Your task to perform on an android device: turn off translation in the chrome app Image 0: 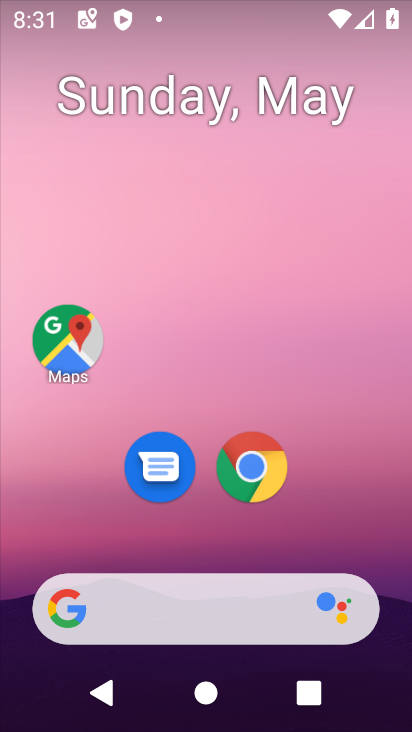
Step 0: click (253, 472)
Your task to perform on an android device: turn off translation in the chrome app Image 1: 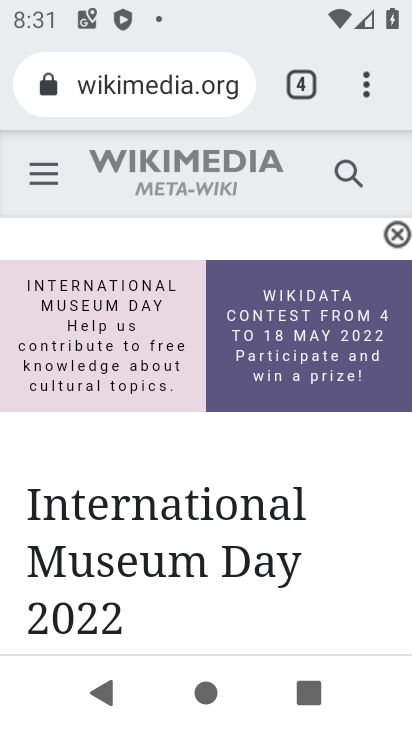
Step 1: click (253, 472)
Your task to perform on an android device: turn off translation in the chrome app Image 2: 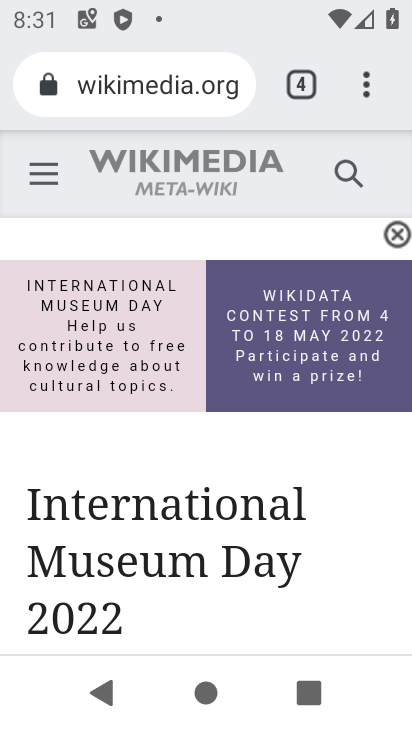
Step 2: click (378, 84)
Your task to perform on an android device: turn off translation in the chrome app Image 3: 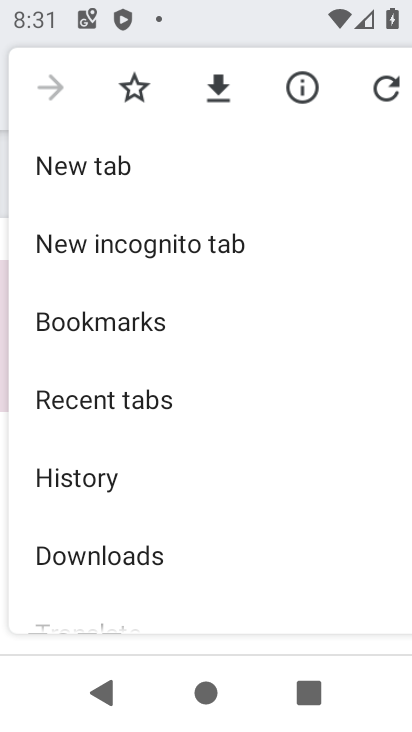
Step 3: drag from (130, 494) to (214, 58)
Your task to perform on an android device: turn off translation in the chrome app Image 4: 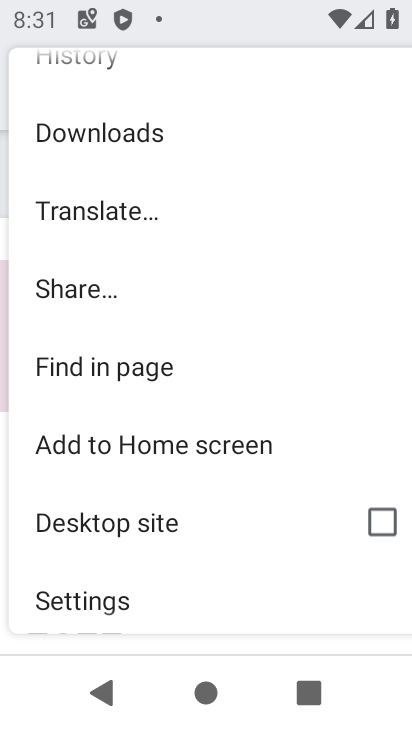
Step 4: click (136, 604)
Your task to perform on an android device: turn off translation in the chrome app Image 5: 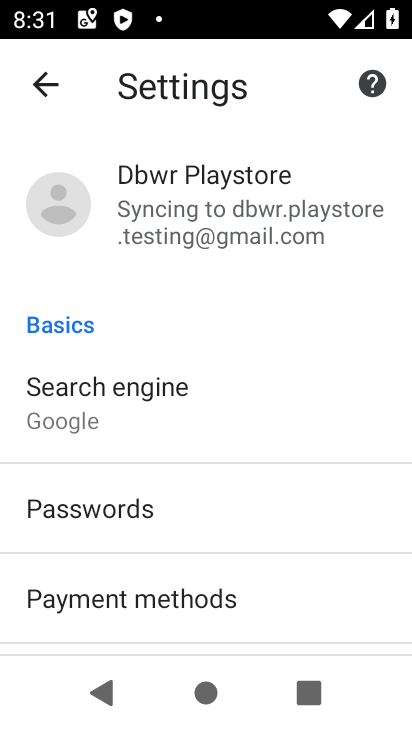
Step 5: drag from (136, 604) to (206, 224)
Your task to perform on an android device: turn off translation in the chrome app Image 6: 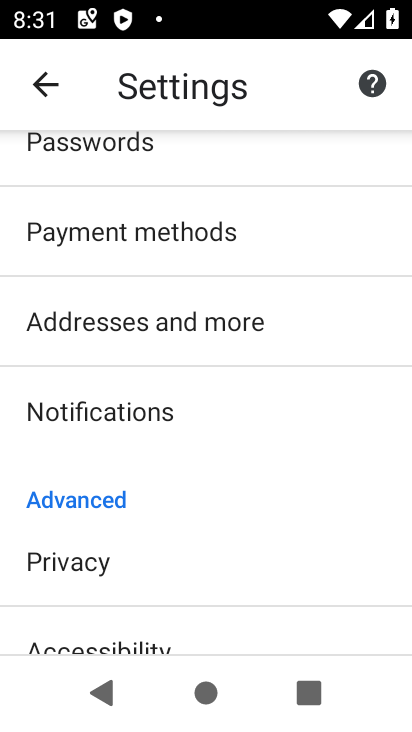
Step 6: drag from (202, 593) to (231, 173)
Your task to perform on an android device: turn off translation in the chrome app Image 7: 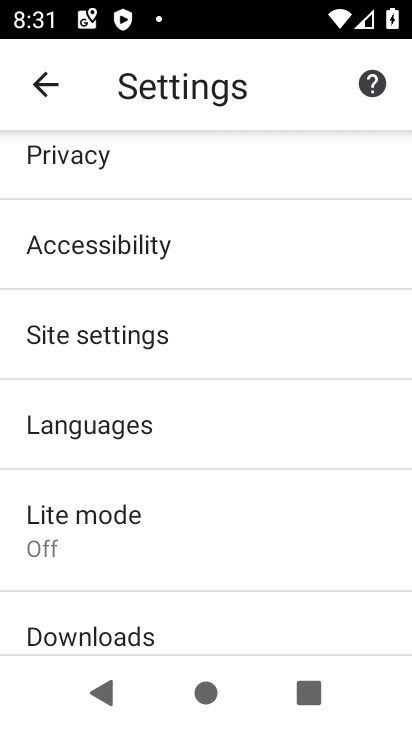
Step 7: click (133, 458)
Your task to perform on an android device: turn off translation in the chrome app Image 8: 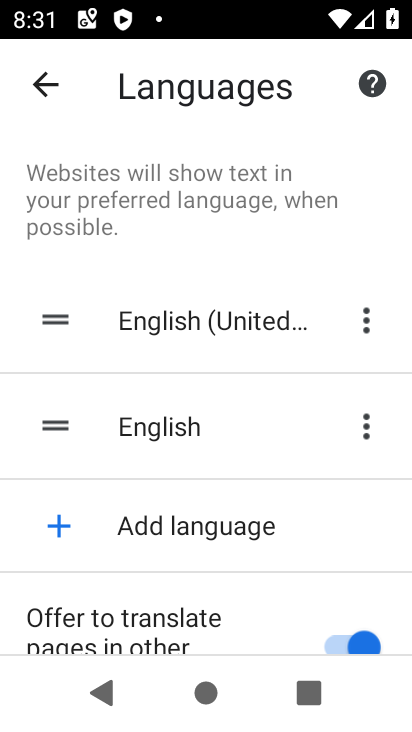
Step 8: click (354, 648)
Your task to perform on an android device: turn off translation in the chrome app Image 9: 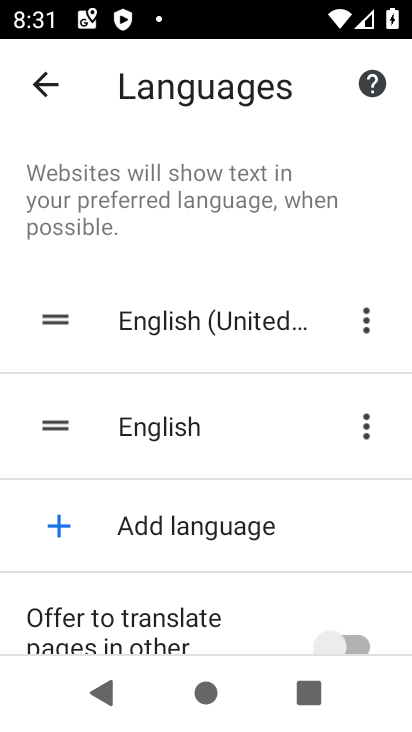
Step 9: task complete